Your task to perform on an android device: turn on bluetooth scan Image 0: 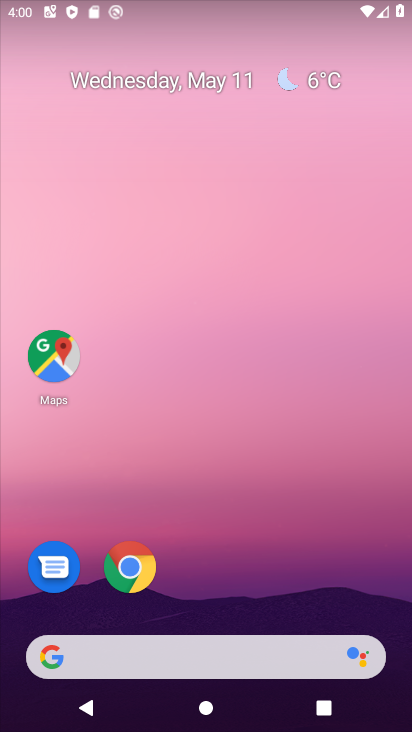
Step 0: drag from (258, 594) to (258, 329)
Your task to perform on an android device: turn on bluetooth scan Image 1: 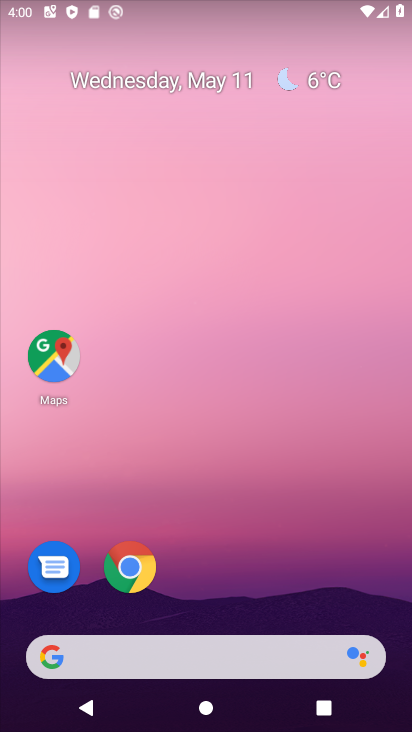
Step 1: drag from (193, 595) to (291, 203)
Your task to perform on an android device: turn on bluetooth scan Image 2: 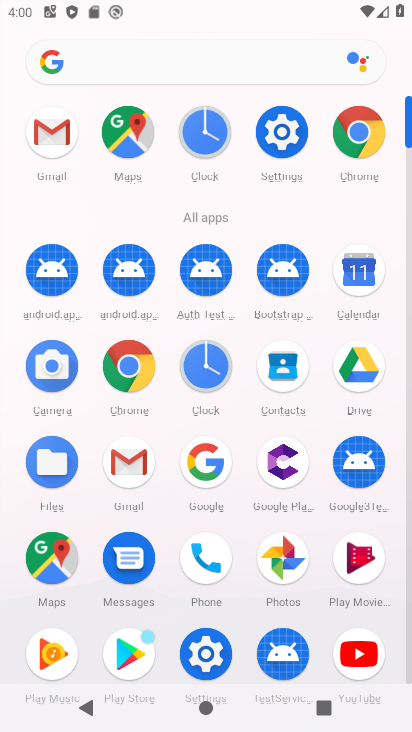
Step 2: click (271, 123)
Your task to perform on an android device: turn on bluetooth scan Image 3: 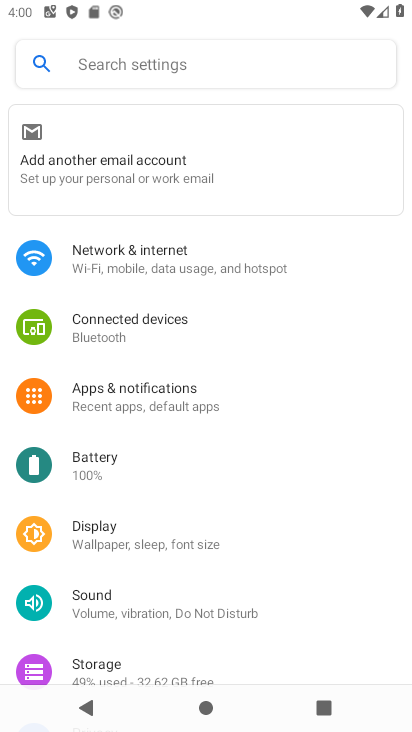
Step 3: click (172, 56)
Your task to perform on an android device: turn on bluetooth scan Image 4: 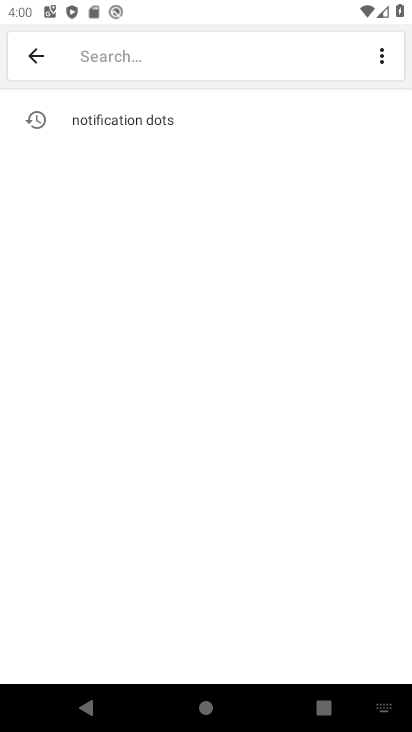
Step 4: click (176, 47)
Your task to perform on an android device: turn on bluetooth scan Image 5: 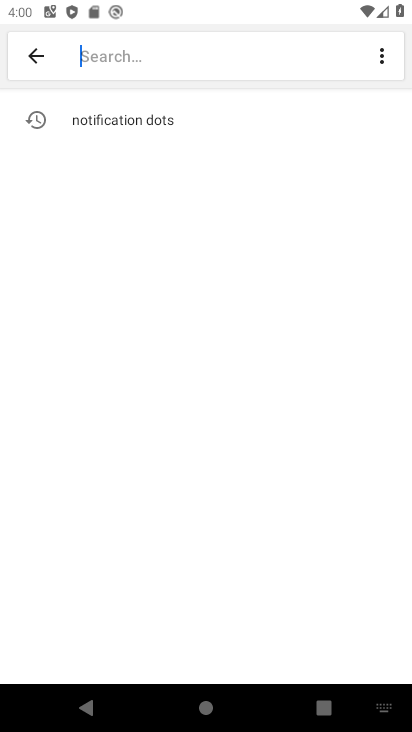
Step 5: type " bluetooth scan"
Your task to perform on an android device: turn on bluetooth scan Image 6: 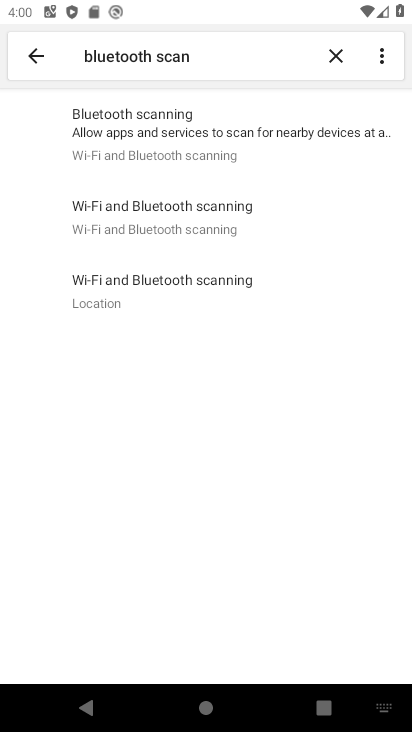
Step 6: click (203, 131)
Your task to perform on an android device: turn on bluetooth scan Image 7: 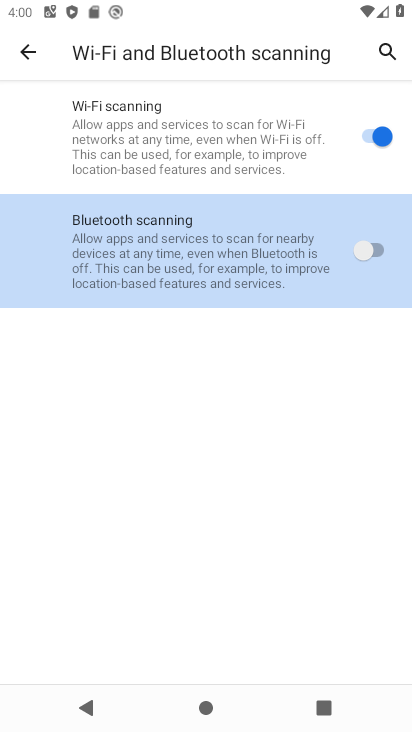
Step 7: click (374, 242)
Your task to perform on an android device: turn on bluetooth scan Image 8: 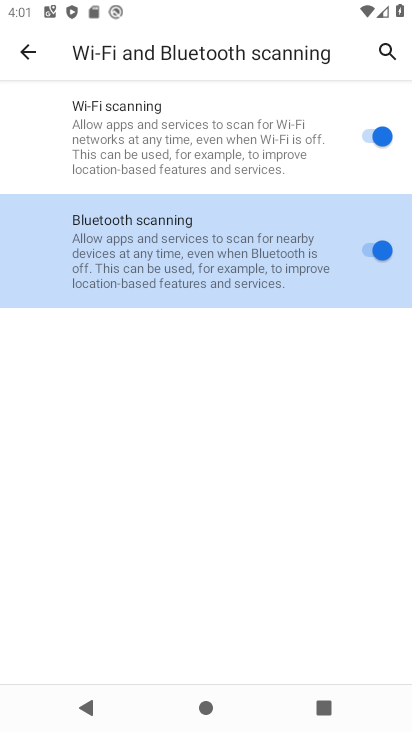
Step 8: task complete